Your task to perform on an android device: Open internet settings Image 0: 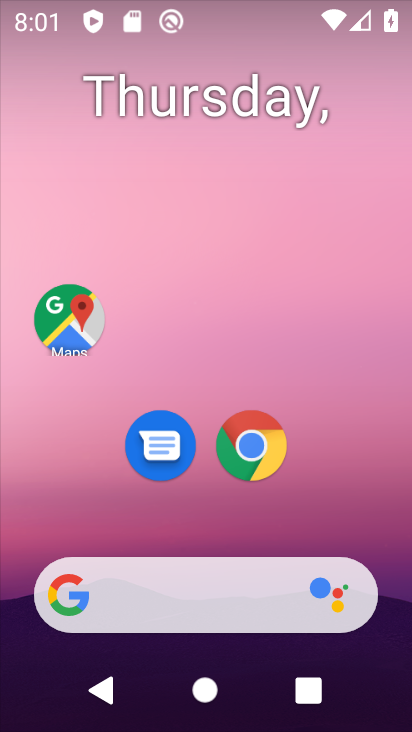
Step 0: drag from (372, 455) to (343, 60)
Your task to perform on an android device: Open internet settings Image 1: 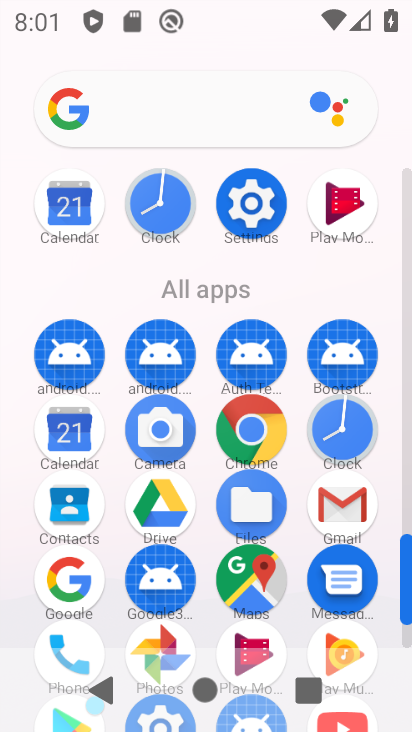
Step 1: click (250, 208)
Your task to perform on an android device: Open internet settings Image 2: 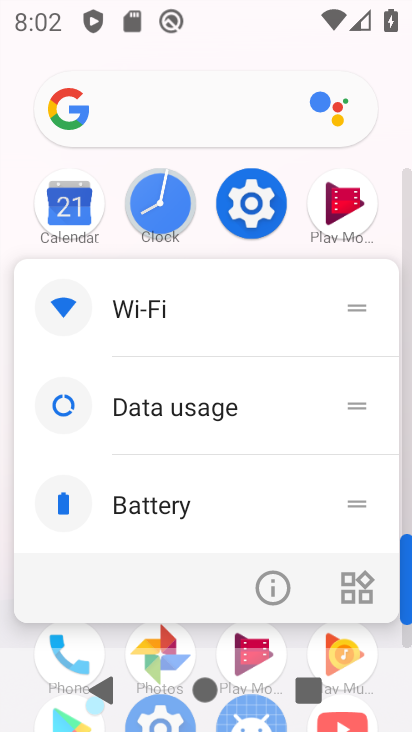
Step 2: click (260, 206)
Your task to perform on an android device: Open internet settings Image 3: 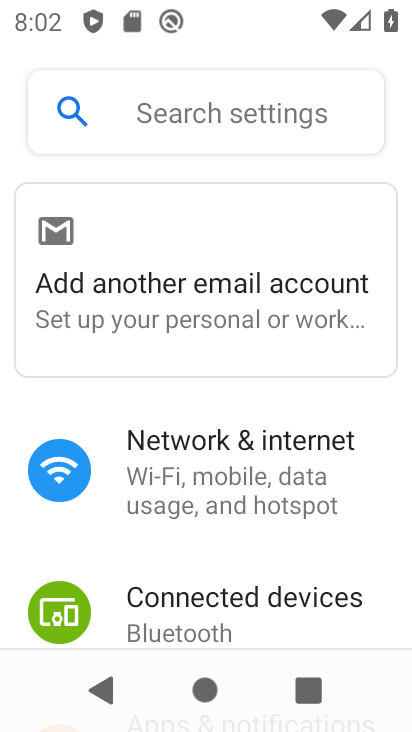
Step 3: click (212, 485)
Your task to perform on an android device: Open internet settings Image 4: 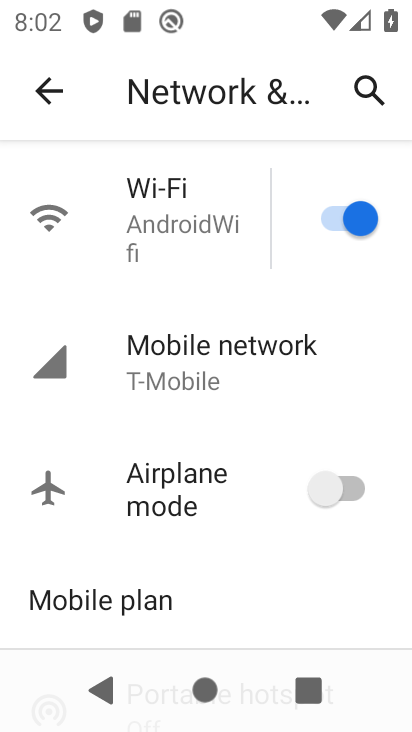
Step 4: drag from (236, 554) to (206, 201)
Your task to perform on an android device: Open internet settings Image 5: 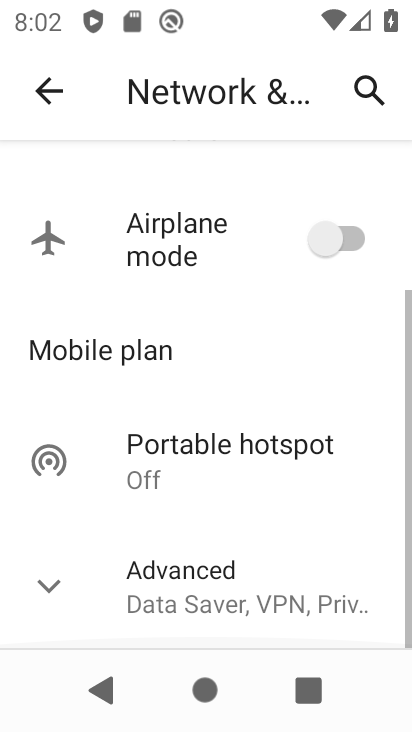
Step 5: drag from (187, 448) to (181, 237)
Your task to perform on an android device: Open internet settings Image 6: 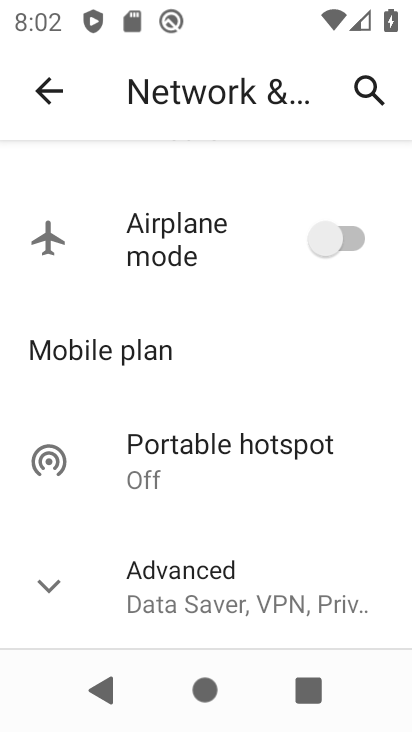
Step 6: click (45, 595)
Your task to perform on an android device: Open internet settings Image 7: 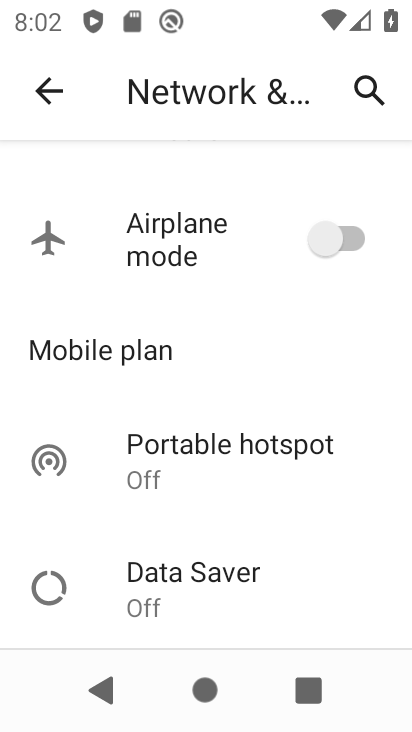
Step 7: task complete